Your task to perform on an android device: Open the Play Movies app and select the watchlist tab. Image 0: 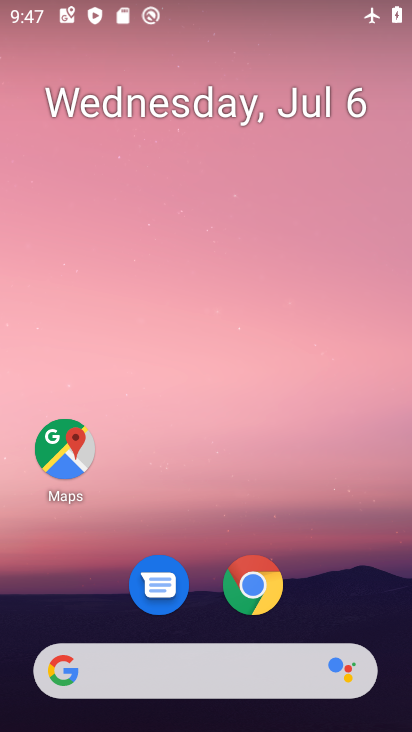
Step 0: drag from (257, 491) to (281, 9)
Your task to perform on an android device: Open the Play Movies app and select the watchlist tab. Image 1: 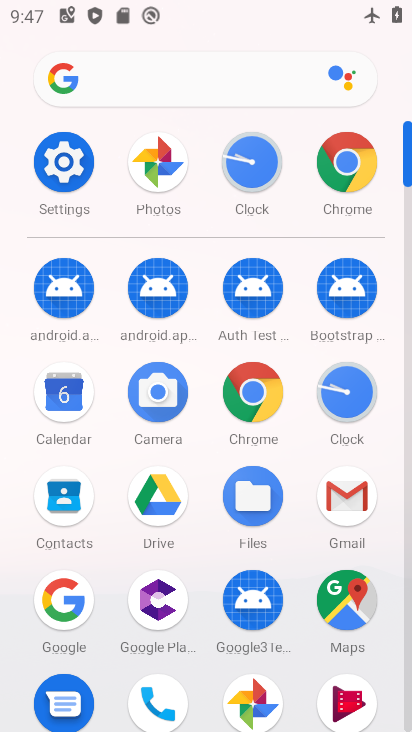
Step 1: drag from (211, 549) to (218, 373)
Your task to perform on an android device: Open the Play Movies app and select the watchlist tab. Image 2: 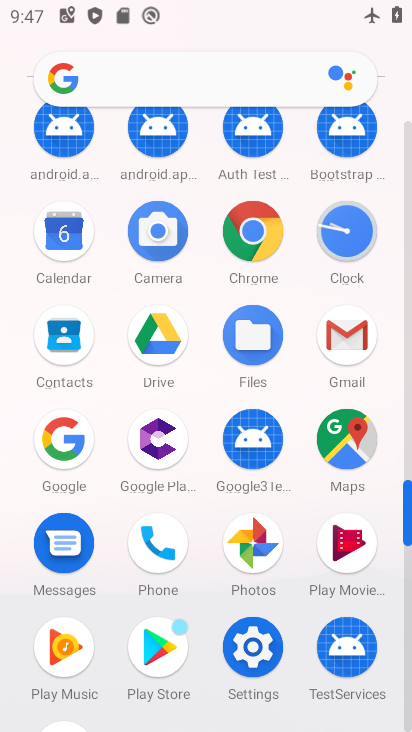
Step 2: click (347, 554)
Your task to perform on an android device: Open the Play Movies app and select the watchlist tab. Image 3: 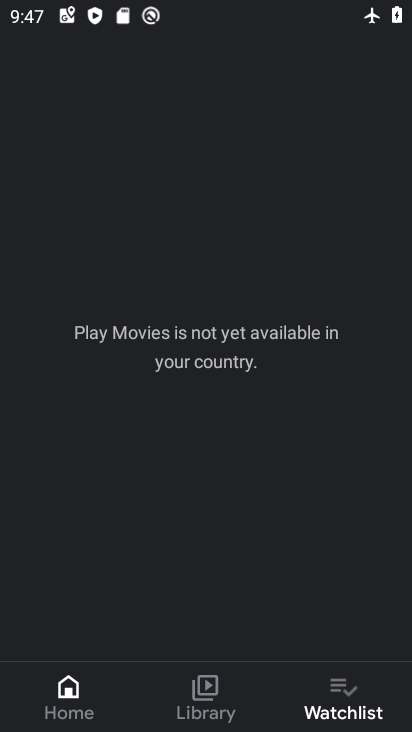
Step 3: task complete